Your task to perform on an android device: Check the weather Image 0: 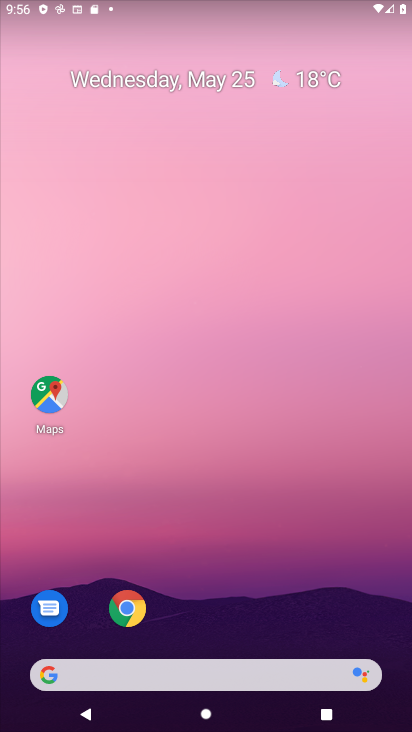
Step 0: click (324, 73)
Your task to perform on an android device: Check the weather Image 1: 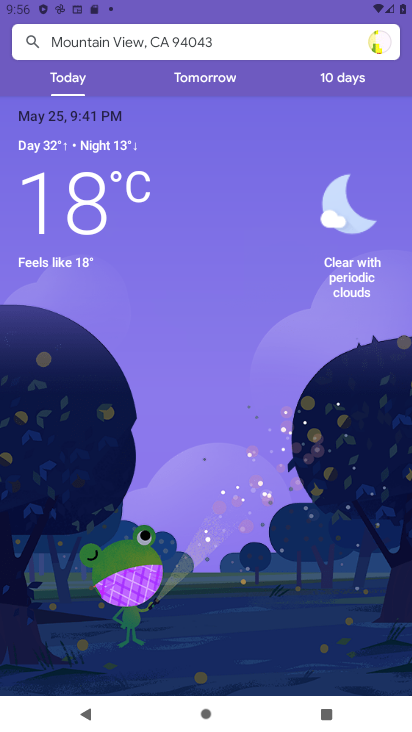
Step 1: task complete